Your task to perform on an android device: move an email to a new category in the gmail app Image 0: 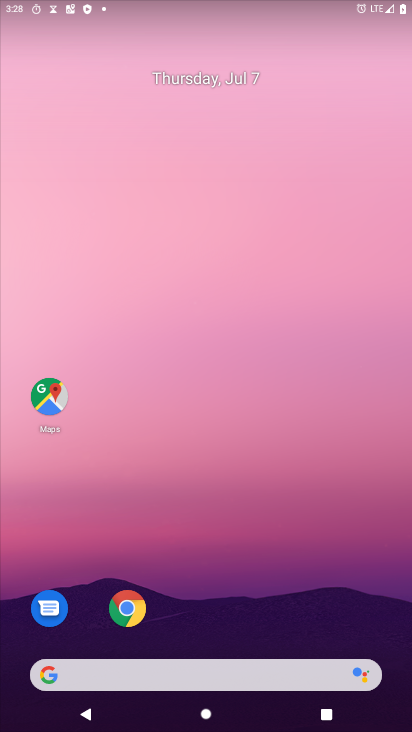
Step 0: drag from (262, 719) to (261, 182)
Your task to perform on an android device: move an email to a new category in the gmail app Image 1: 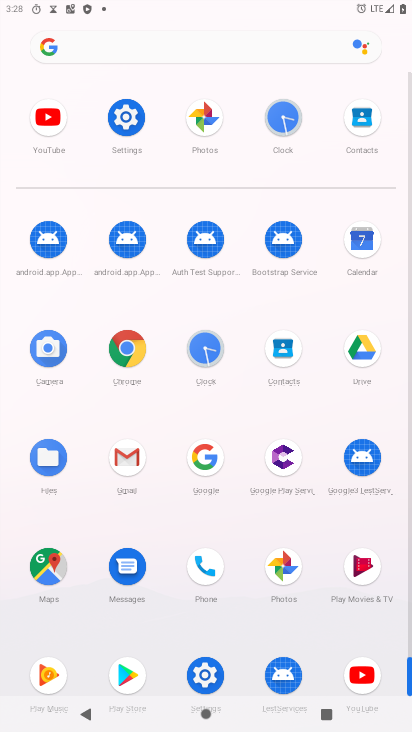
Step 1: click (128, 459)
Your task to perform on an android device: move an email to a new category in the gmail app Image 2: 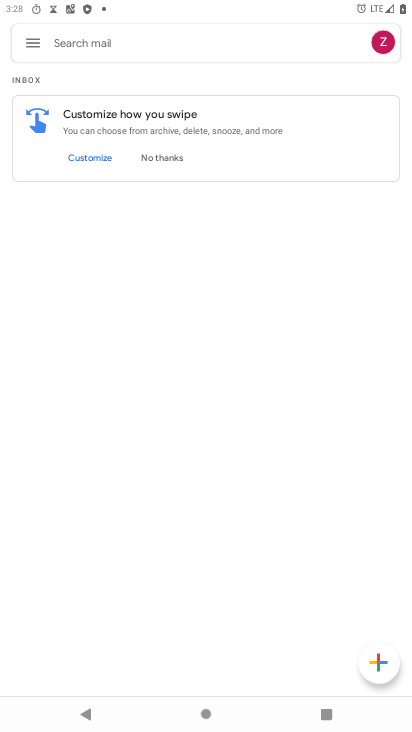
Step 2: task complete